Your task to perform on an android device: delete a single message in the gmail app Image 0: 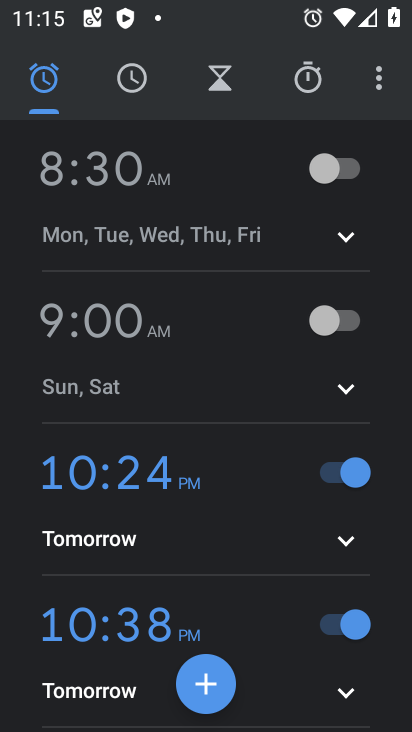
Step 0: press home button
Your task to perform on an android device: delete a single message in the gmail app Image 1: 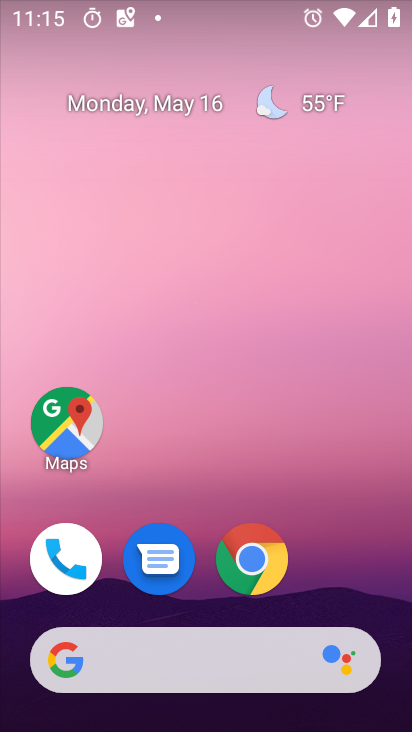
Step 1: drag from (318, 563) to (286, 154)
Your task to perform on an android device: delete a single message in the gmail app Image 2: 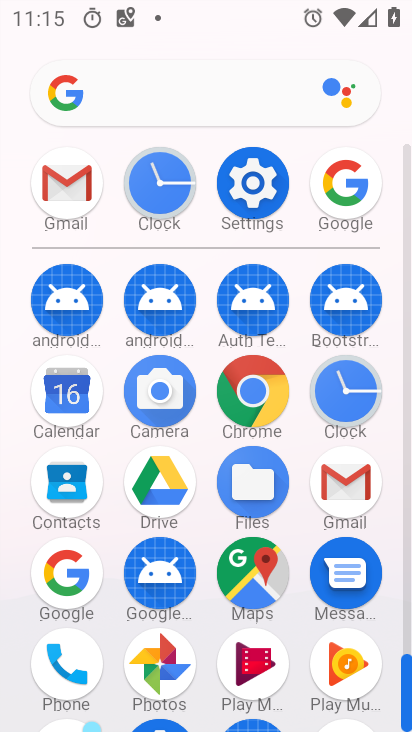
Step 2: click (357, 474)
Your task to perform on an android device: delete a single message in the gmail app Image 3: 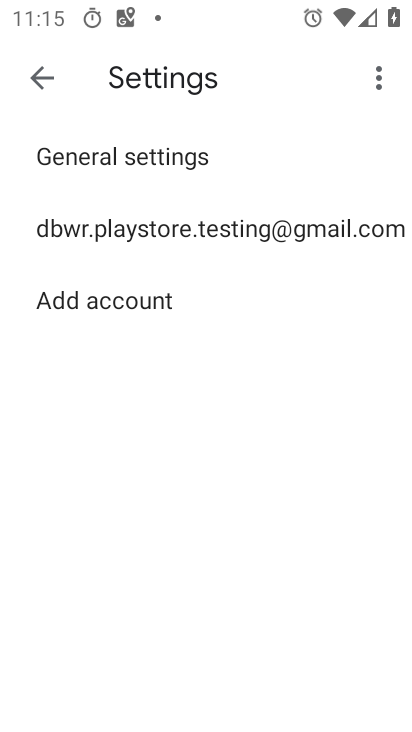
Step 3: click (39, 89)
Your task to perform on an android device: delete a single message in the gmail app Image 4: 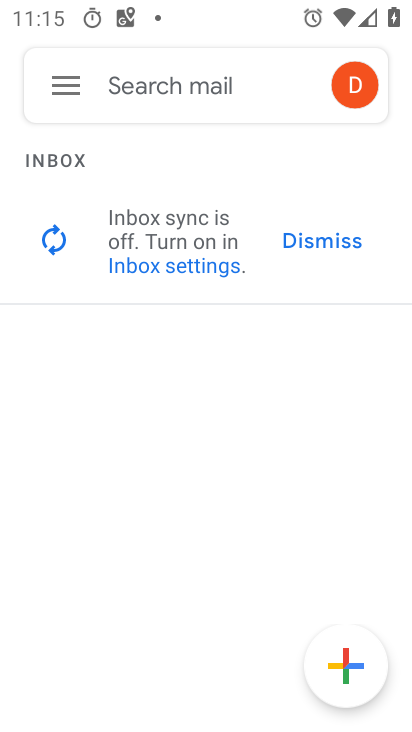
Step 4: click (49, 87)
Your task to perform on an android device: delete a single message in the gmail app Image 5: 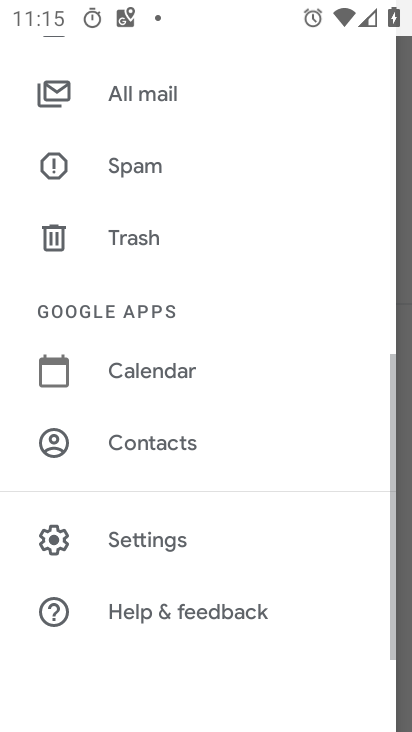
Step 5: drag from (153, 166) to (148, 631)
Your task to perform on an android device: delete a single message in the gmail app Image 6: 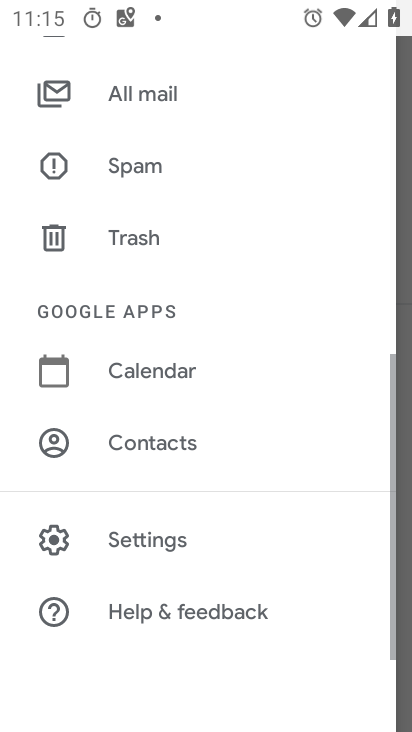
Step 6: drag from (235, 267) to (199, 652)
Your task to perform on an android device: delete a single message in the gmail app Image 7: 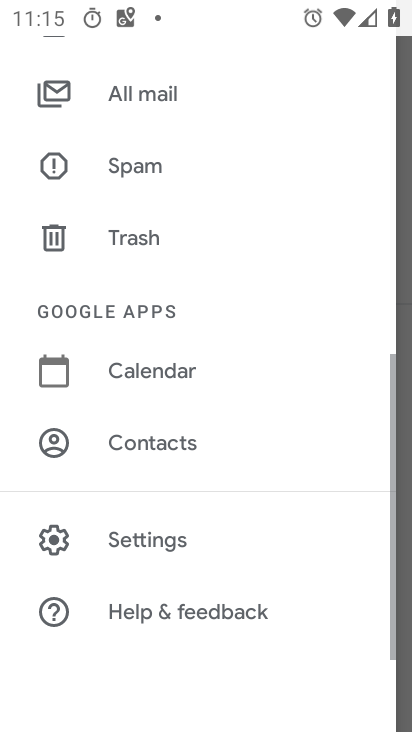
Step 7: drag from (129, 219) to (90, 691)
Your task to perform on an android device: delete a single message in the gmail app Image 8: 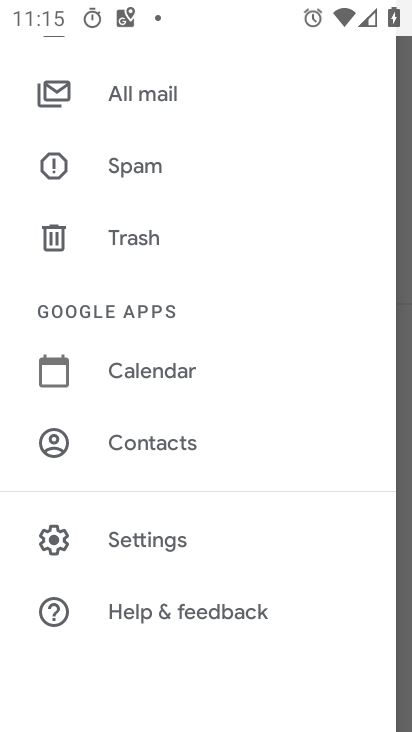
Step 8: drag from (157, 158) to (161, 563)
Your task to perform on an android device: delete a single message in the gmail app Image 9: 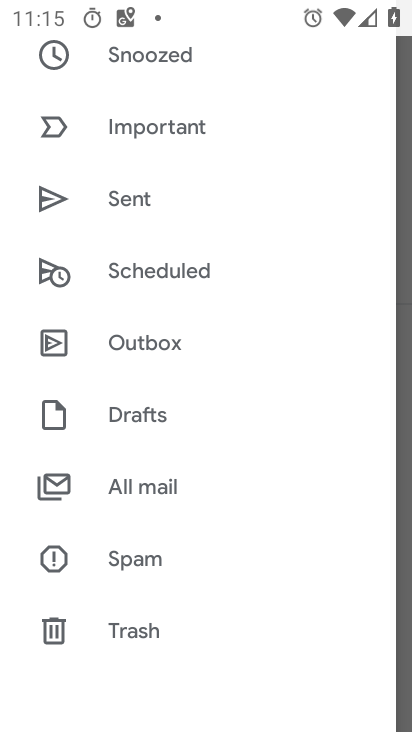
Step 9: drag from (185, 175) to (195, 374)
Your task to perform on an android device: delete a single message in the gmail app Image 10: 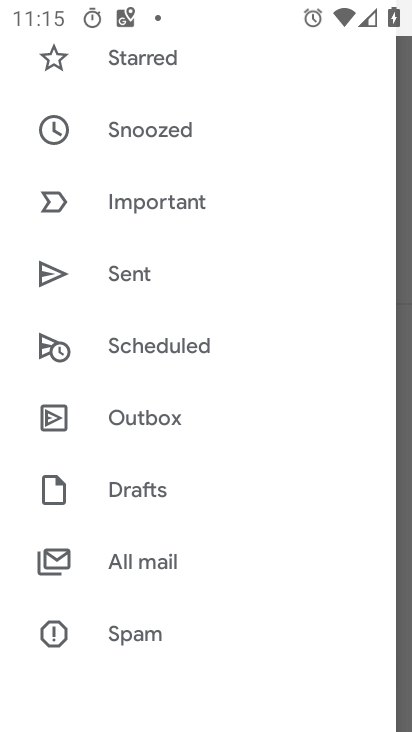
Step 10: click (129, 551)
Your task to perform on an android device: delete a single message in the gmail app Image 11: 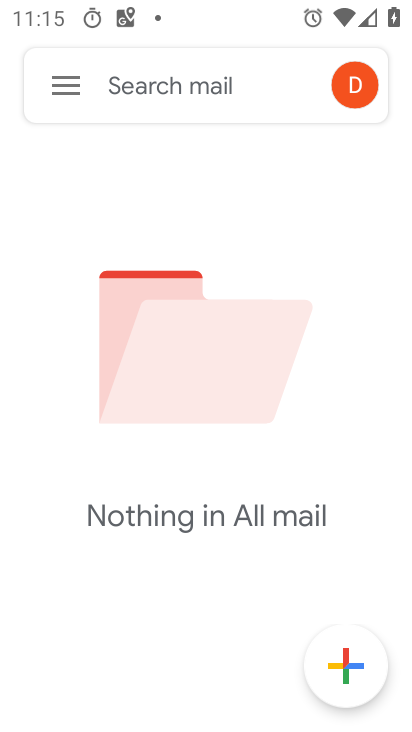
Step 11: task complete